Your task to perform on an android device: see creations saved in the google photos Image 0: 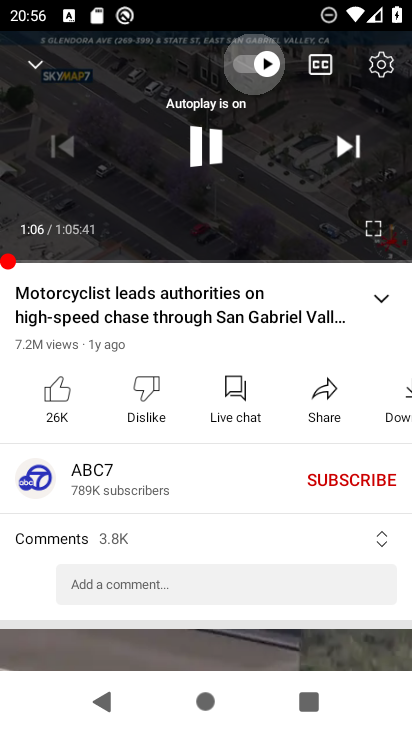
Step 0: press home button
Your task to perform on an android device: see creations saved in the google photos Image 1: 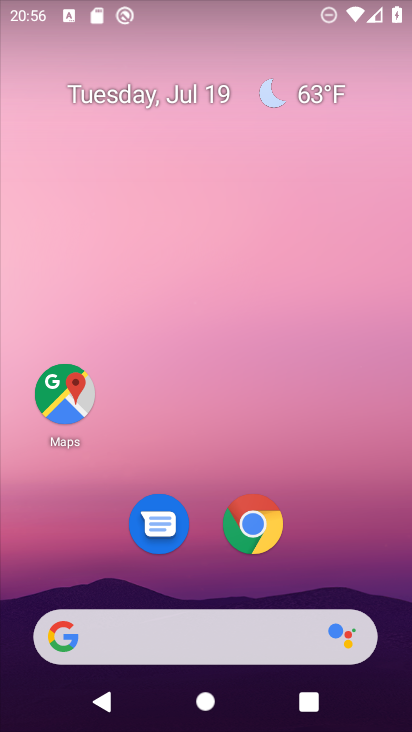
Step 1: drag from (324, 537) to (333, 54)
Your task to perform on an android device: see creations saved in the google photos Image 2: 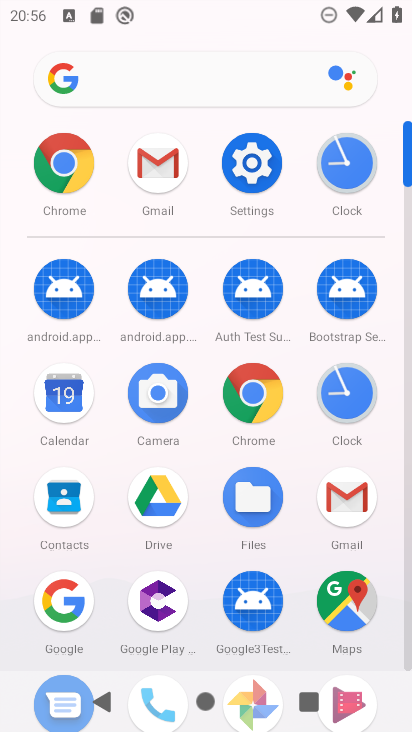
Step 2: drag from (200, 447) to (212, 252)
Your task to perform on an android device: see creations saved in the google photos Image 3: 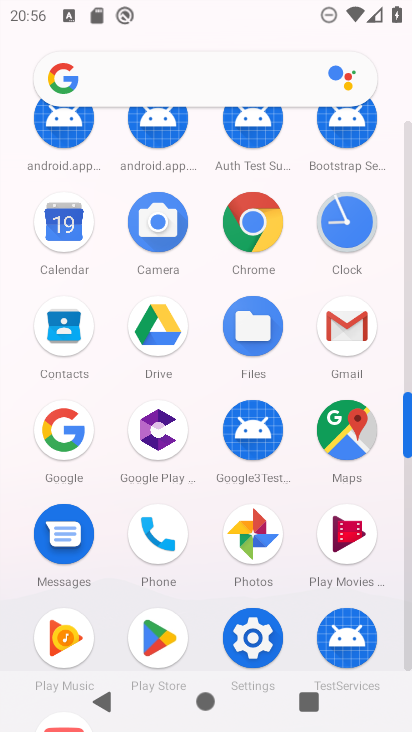
Step 3: click (255, 536)
Your task to perform on an android device: see creations saved in the google photos Image 4: 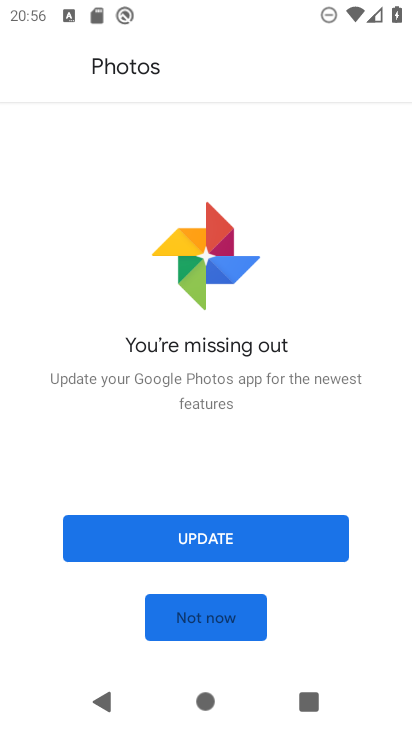
Step 4: click (250, 615)
Your task to perform on an android device: see creations saved in the google photos Image 5: 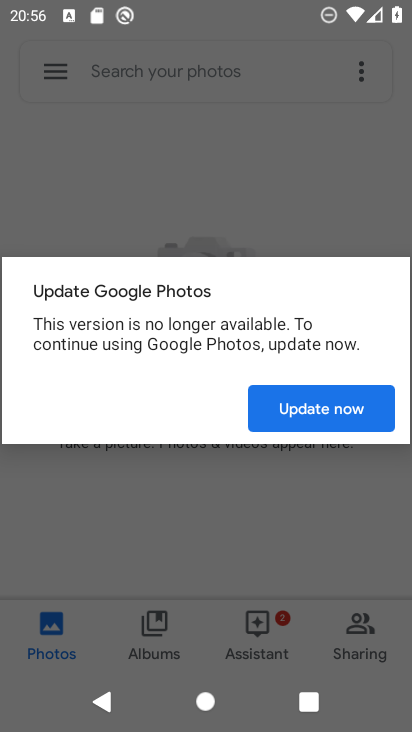
Step 5: click (377, 402)
Your task to perform on an android device: see creations saved in the google photos Image 6: 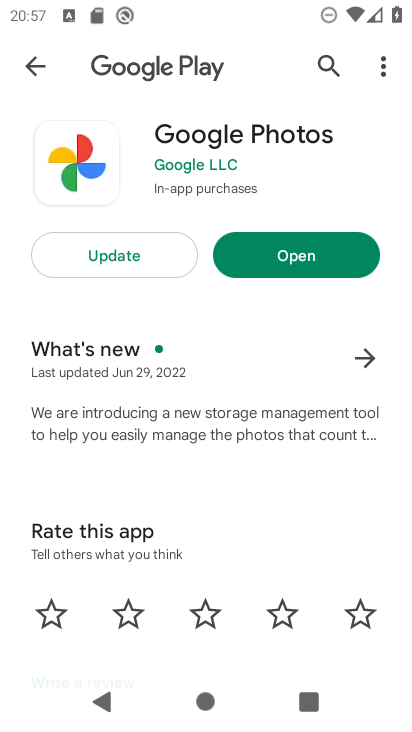
Step 6: click (327, 260)
Your task to perform on an android device: see creations saved in the google photos Image 7: 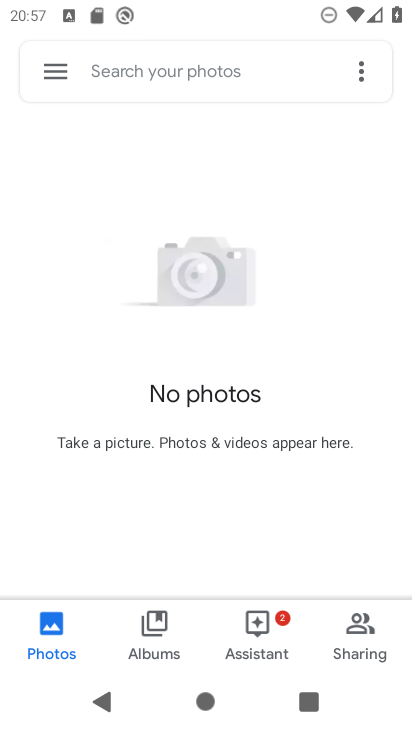
Step 7: click (232, 66)
Your task to perform on an android device: see creations saved in the google photos Image 8: 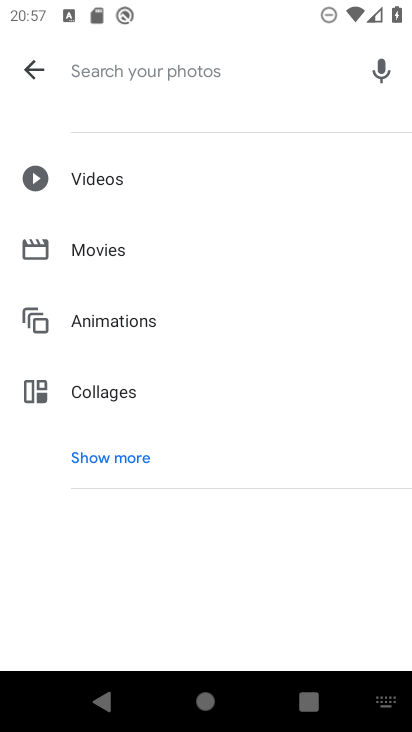
Step 8: click (111, 452)
Your task to perform on an android device: see creations saved in the google photos Image 9: 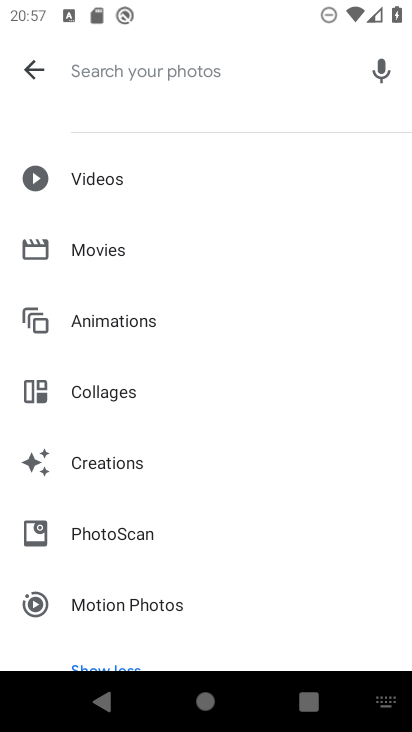
Step 9: click (109, 462)
Your task to perform on an android device: see creations saved in the google photos Image 10: 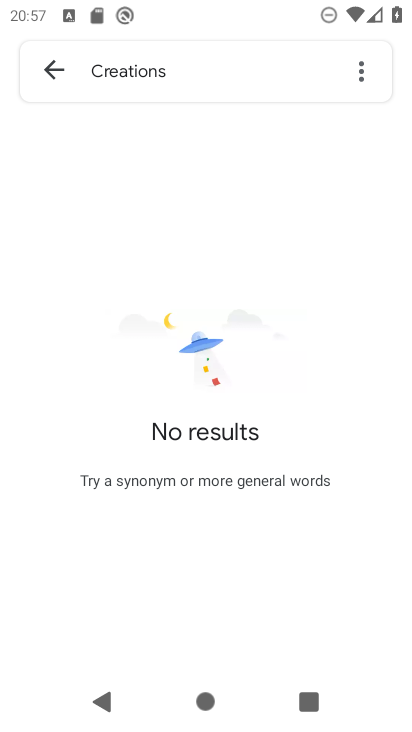
Step 10: task complete